Your task to perform on an android device: choose inbox layout in the gmail app Image 0: 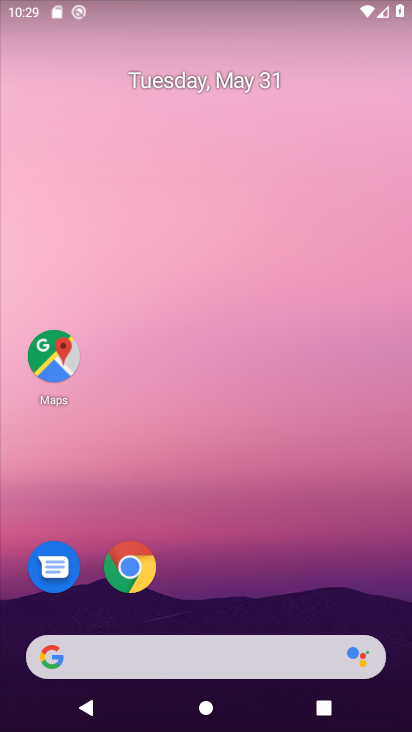
Step 0: drag from (217, 607) to (202, 102)
Your task to perform on an android device: choose inbox layout in the gmail app Image 1: 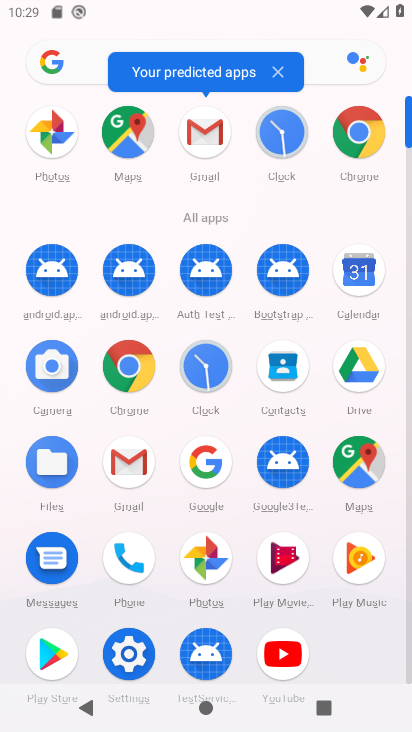
Step 1: click (212, 147)
Your task to perform on an android device: choose inbox layout in the gmail app Image 2: 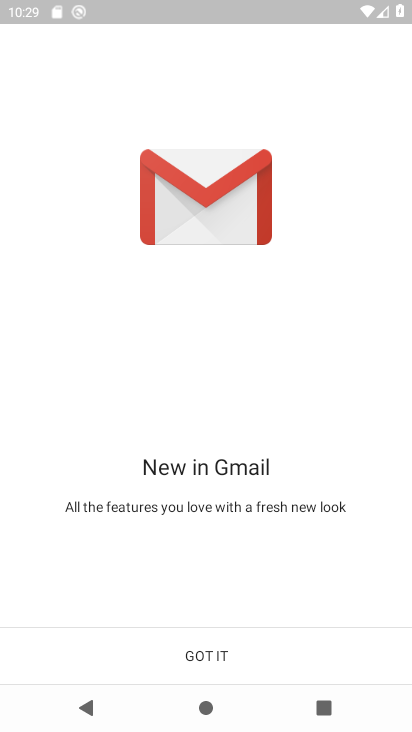
Step 2: click (190, 660)
Your task to perform on an android device: choose inbox layout in the gmail app Image 3: 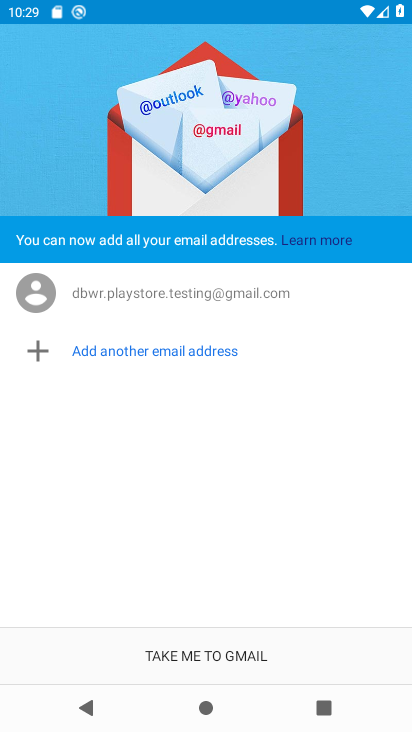
Step 3: click (190, 660)
Your task to perform on an android device: choose inbox layout in the gmail app Image 4: 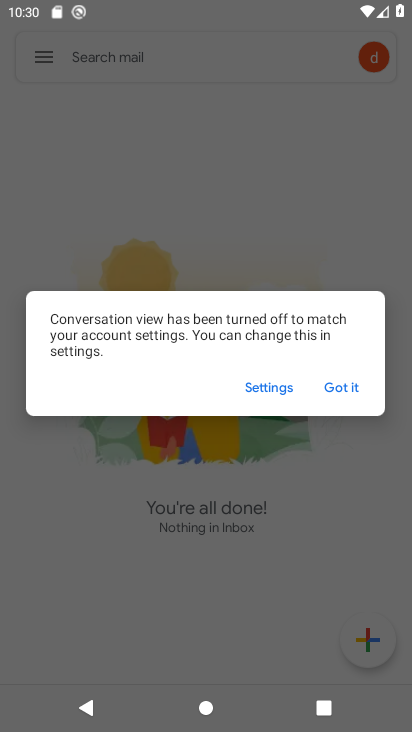
Step 4: click (352, 391)
Your task to perform on an android device: choose inbox layout in the gmail app Image 5: 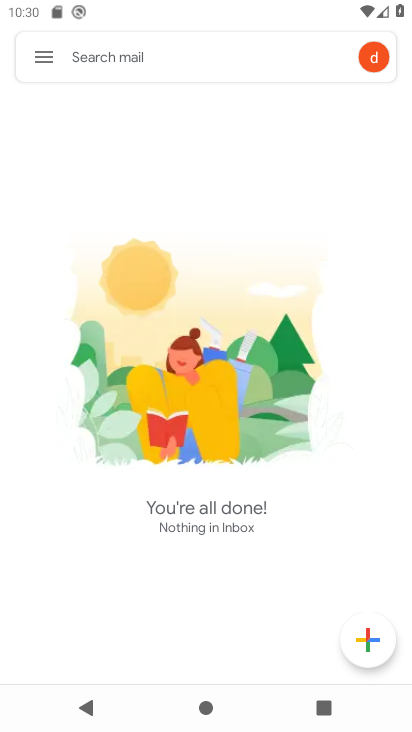
Step 5: click (50, 67)
Your task to perform on an android device: choose inbox layout in the gmail app Image 6: 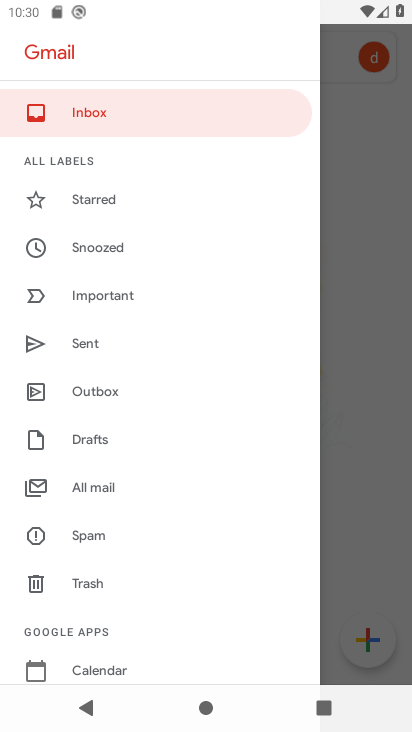
Step 6: drag from (131, 528) to (157, 167)
Your task to perform on an android device: choose inbox layout in the gmail app Image 7: 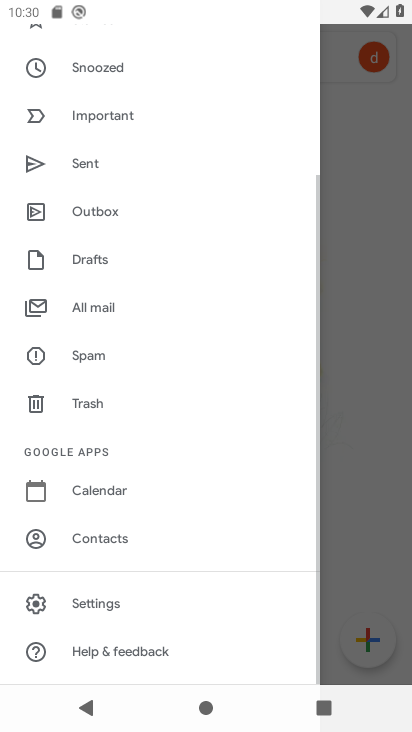
Step 7: click (107, 591)
Your task to perform on an android device: choose inbox layout in the gmail app Image 8: 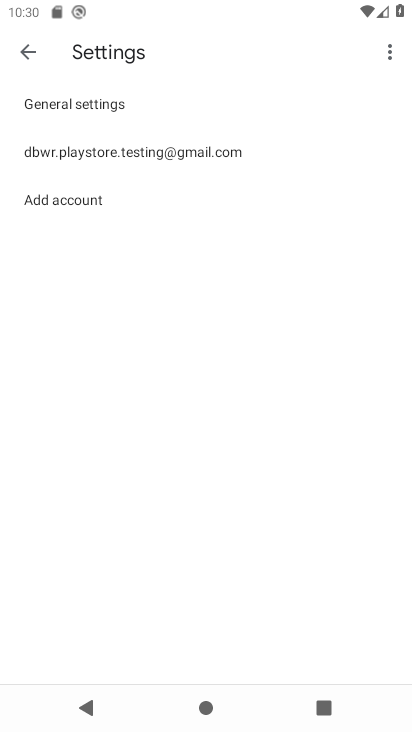
Step 8: click (231, 149)
Your task to perform on an android device: choose inbox layout in the gmail app Image 9: 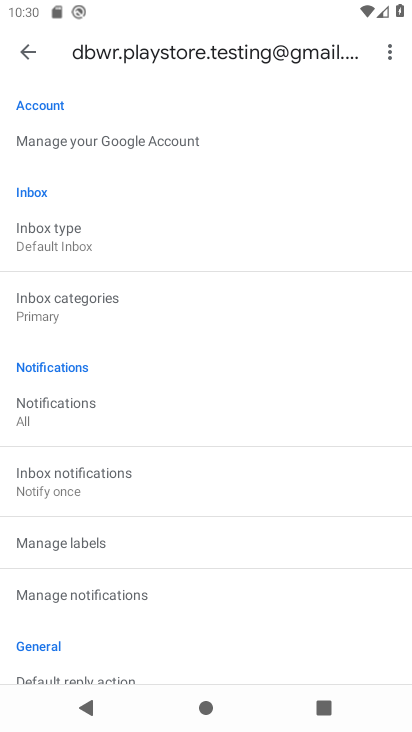
Step 9: click (123, 251)
Your task to perform on an android device: choose inbox layout in the gmail app Image 10: 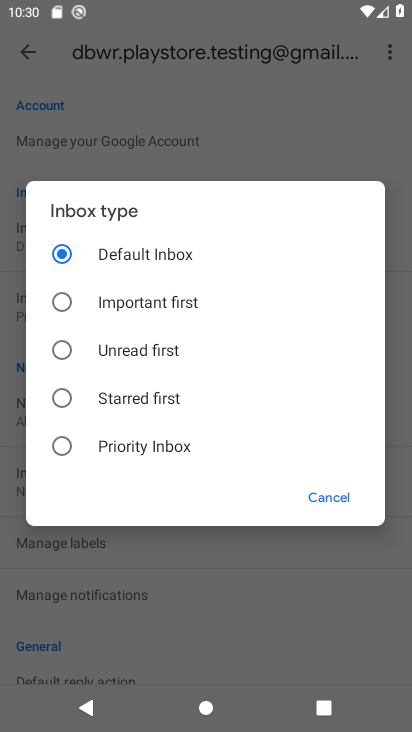
Step 10: click (107, 313)
Your task to perform on an android device: choose inbox layout in the gmail app Image 11: 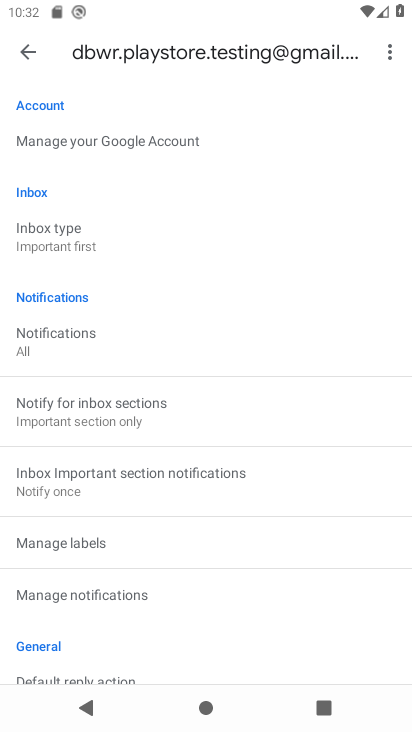
Step 11: task complete